Your task to perform on an android device: Check the news Image 0: 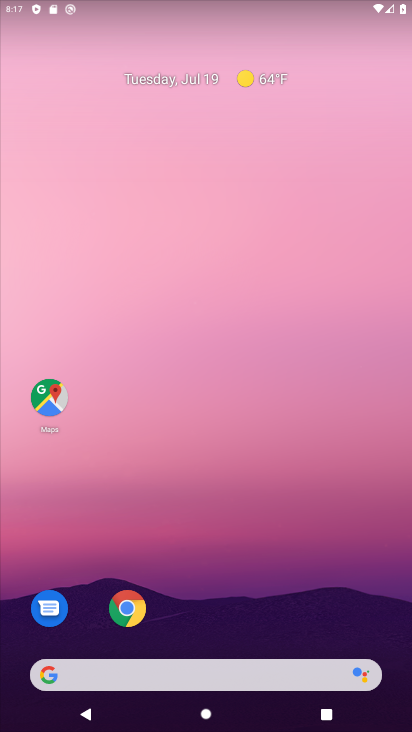
Step 0: drag from (16, 275) to (390, 264)
Your task to perform on an android device: Check the news Image 1: 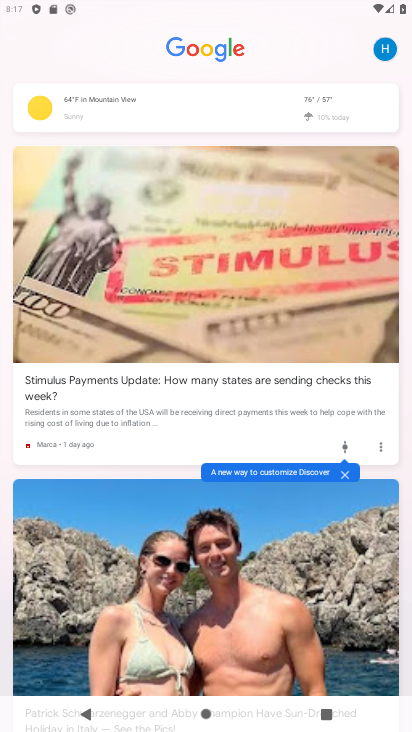
Step 1: task complete